Your task to perform on an android device: turn on the 24-hour format for clock Image 0: 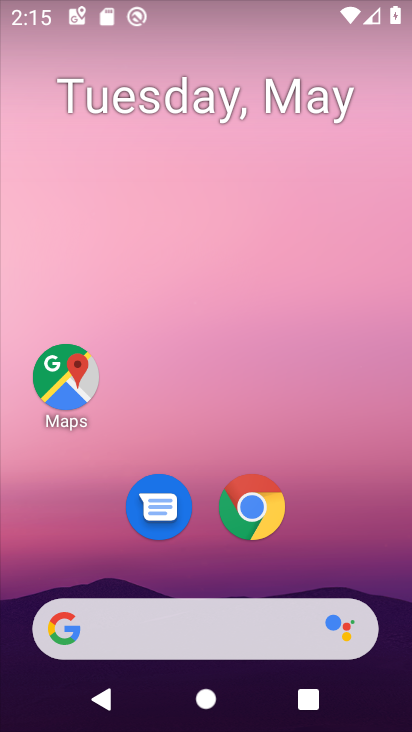
Step 0: press home button
Your task to perform on an android device: turn on the 24-hour format for clock Image 1: 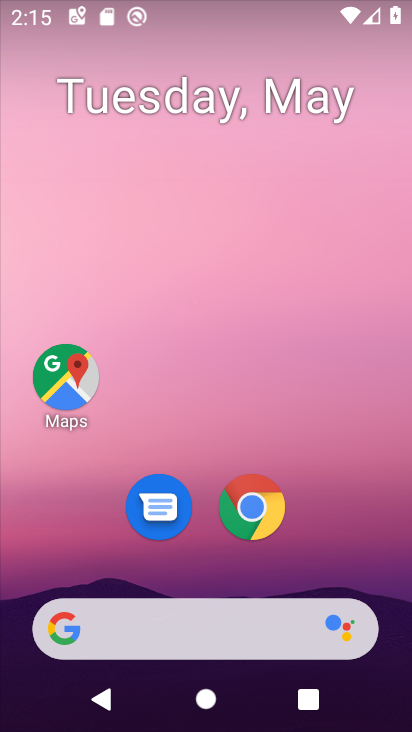
Step 1: drag from (214, 567) to (230, 220)
Your task to perform on an android device: turn on the 24-hour format for clock Image 2: 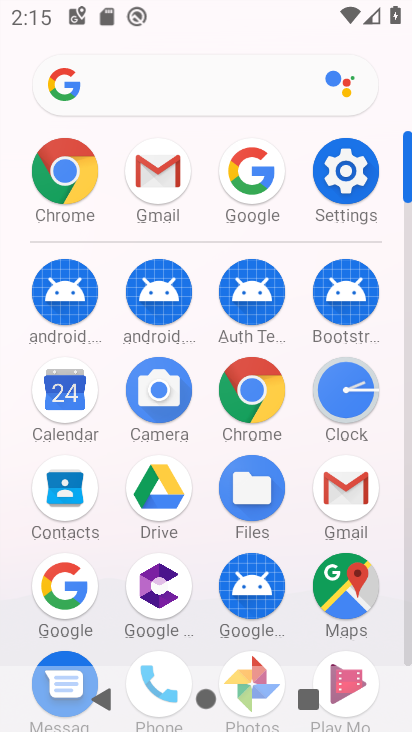
Step 2: click (342, 403)
Your task to perform on an android device: turn on the 24-hour format for clock Image 3: 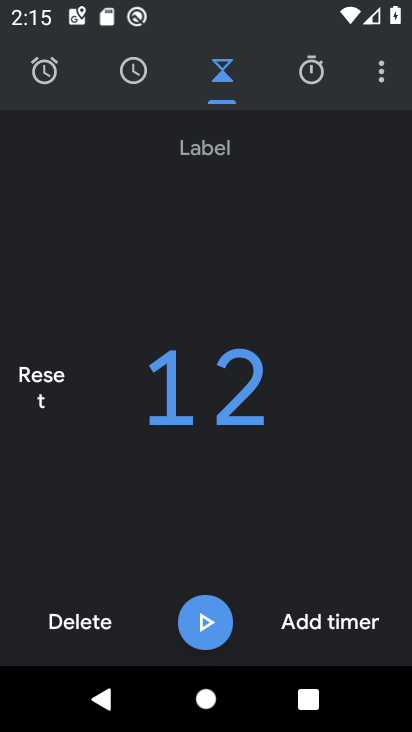
Step 3: click (374, 77)
Your task to perform on an android device: turn on the 24-hour format for clock Image 4: 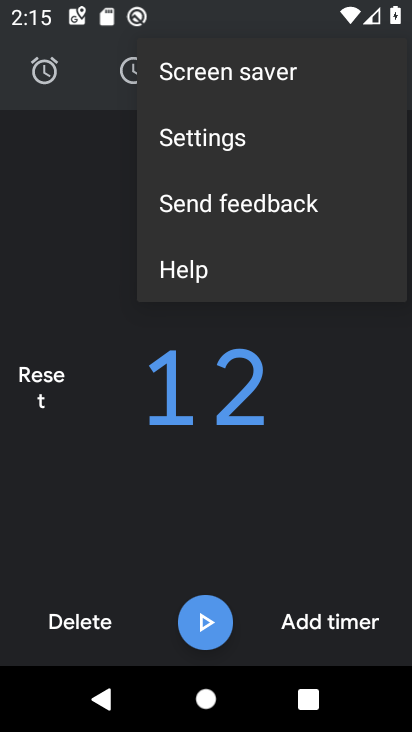
Step 4: click (203, 153)
Your task to perform on an android device: turn on the 24-hour format for clock Image 5: 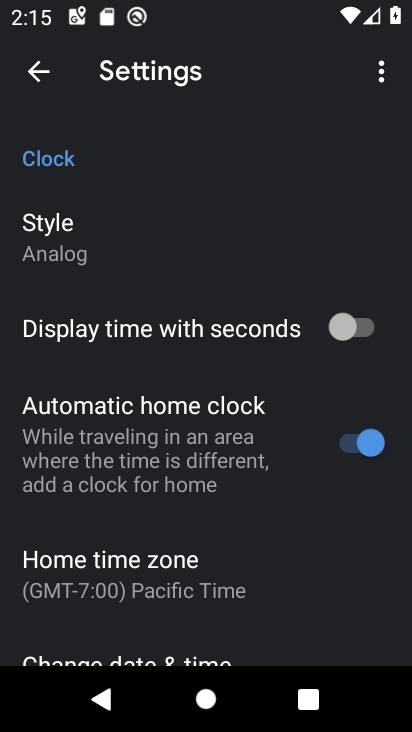
Step 5: drag from (213, 557) to (226, 232)
Your task to perform on an android device: turn on the 24-hour format for clock Image 6: 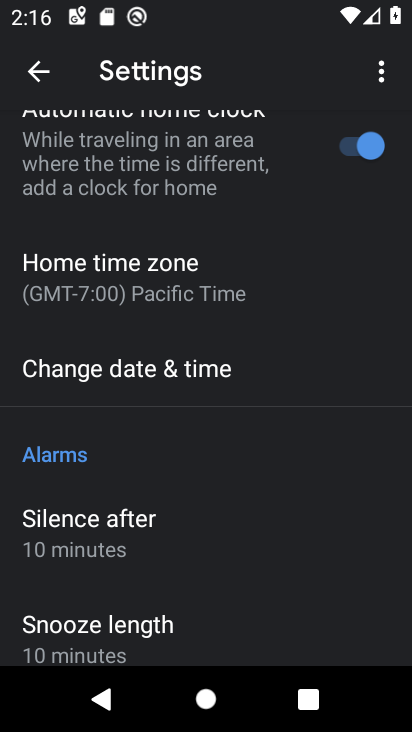
Step 6: drag from (258, 569) to (271, 320)
Your task to perform on an android device: turn on the 24-hour format for clock Image 7: 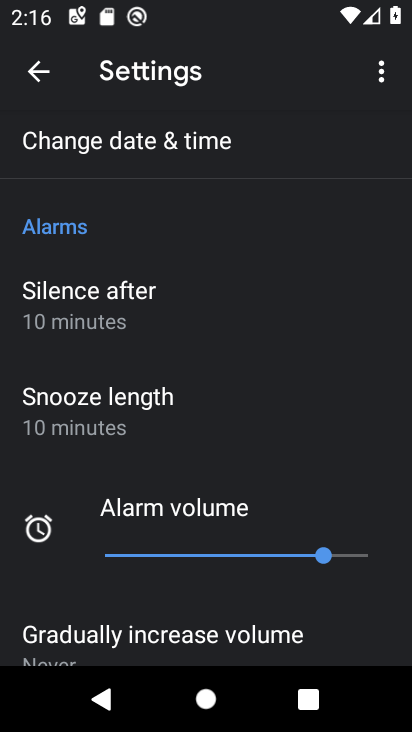
Step 7: click (207, 159)
Your task to perform on an android device: turn on the 24-hour format for clock Image 8: 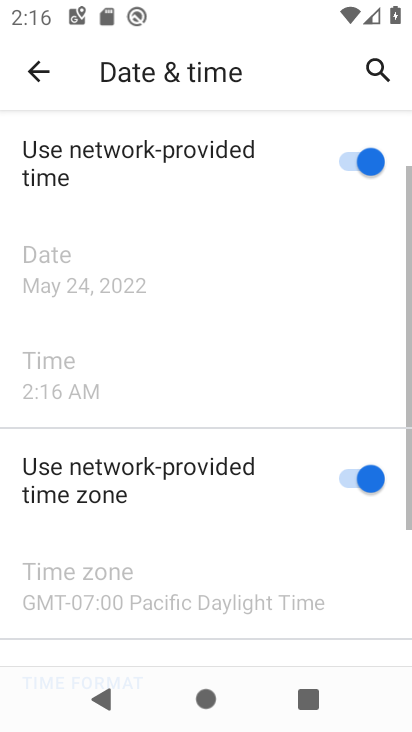
Step 8: drag from (230, 550) to (241, 222)
Your task to perform on an android device: turn on the 24-hour format for clock Image 9: 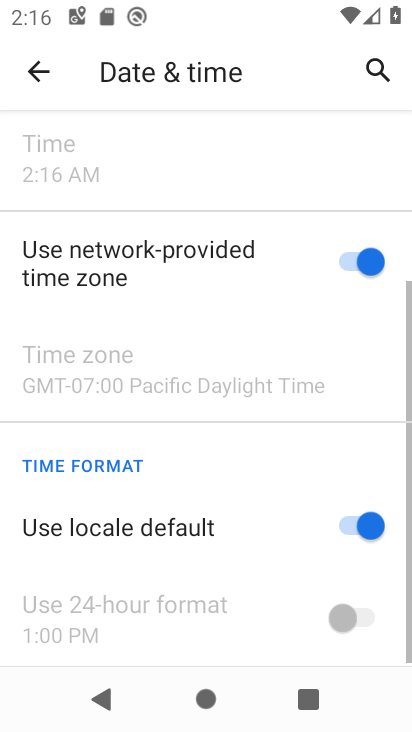
Step 9: drag from (215, 483) to (191, 261)
Your task to perform on an android device: turn on the 24-hour format for clock Image 10: 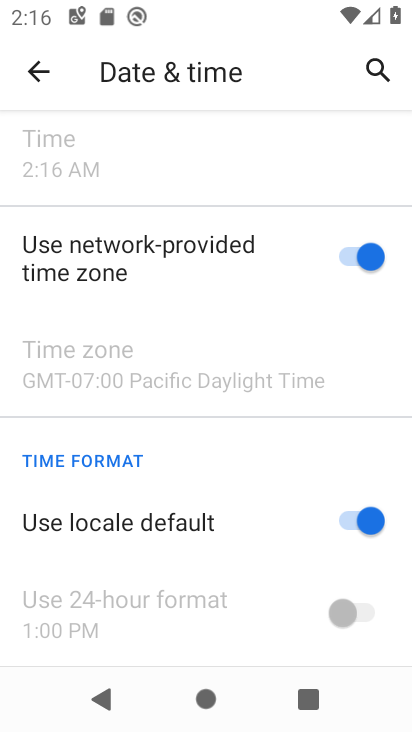
Step 10: click (345, 521)
Your task to perform on an android device: turn on the 24-hour format for clock Image 11: 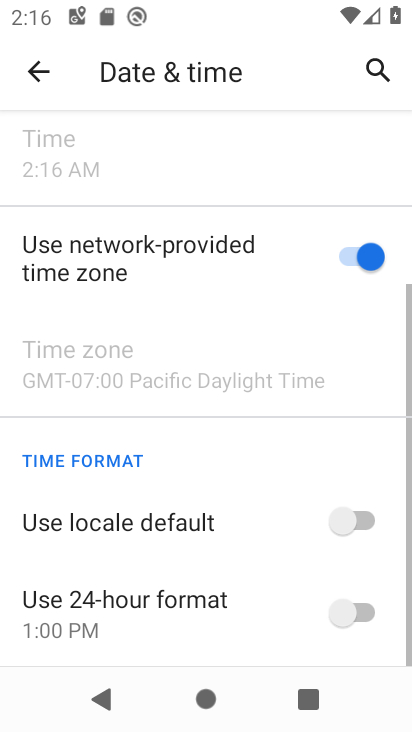
Step 11: click (367, 610)
Your task to perform on an android device: turn on the 24-hour format for clock Image 12: 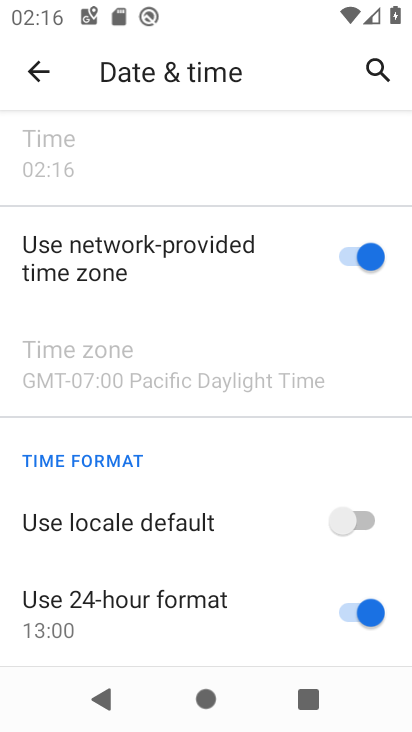
Step 12: task complete